Your task to perform on an android device: Open Android settings Image 0: 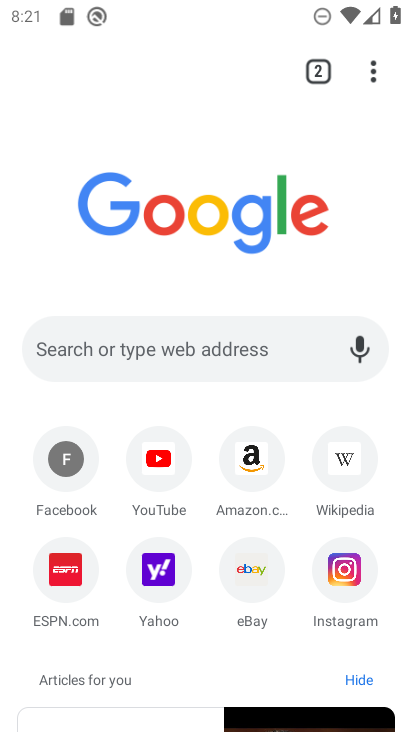
Step 0: press home button
Your task to perform on an android device: Open Android settings Image 1: 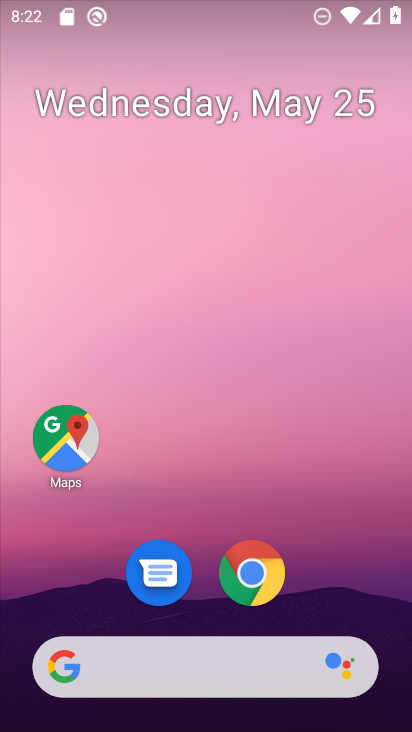
Step 1: drag from (402, 706) to (330, 235)
Your task to perform on an android device: Open Android settings Image 2: 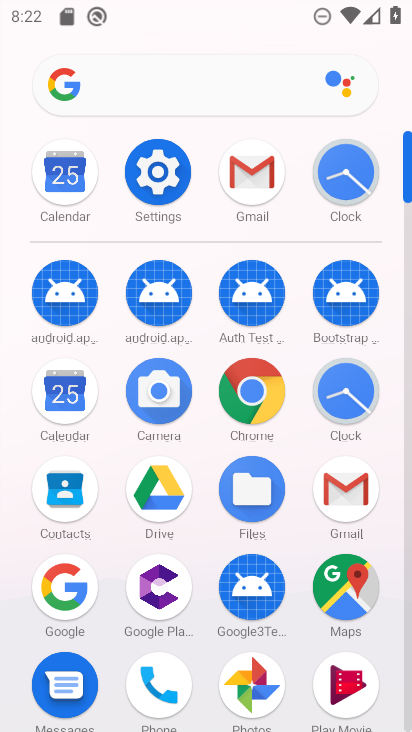
Step 2: click (154, 173)
Your task to perform on an android device: Open Android settings Image 3: 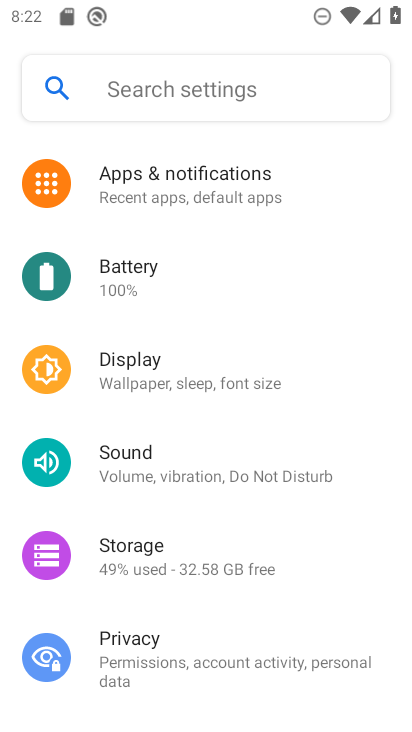
Step 3: task complete